Your task to perform on an android device: change the clock display to digital Image 0: 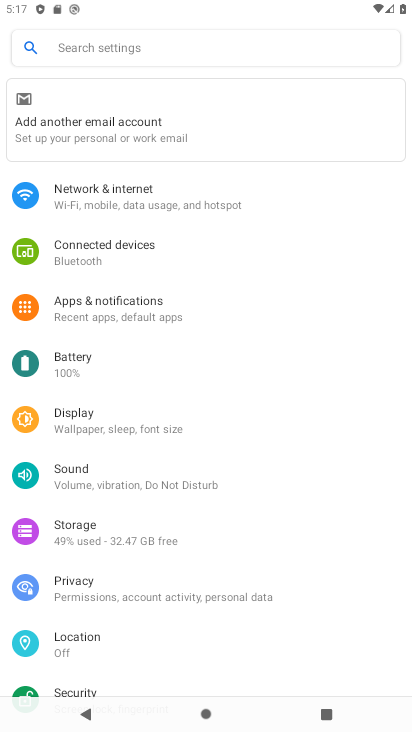
Step 0: press home button
Your task to perform on an android device: change the clock display to digital Image 1: 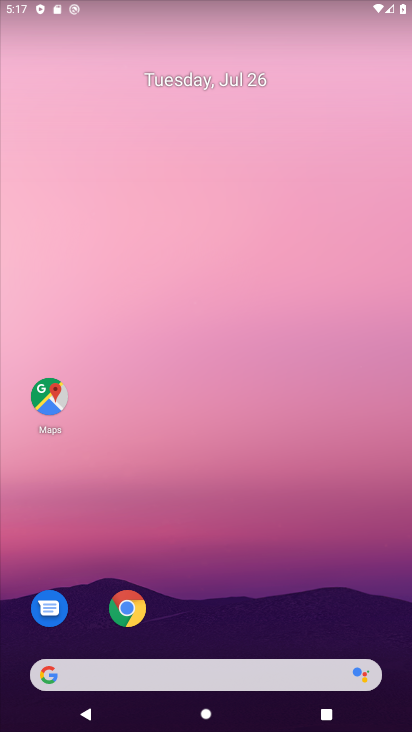
Step 1: drag from (287, 603) to (327, 108)
Your task to perform on an android device: change the clock display to digital Image 2: 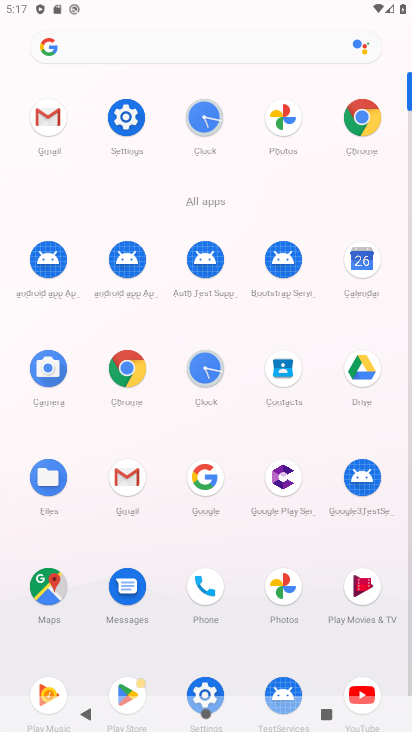
Step 2: click (206, 126)
Your task to perform on an android device: change the clock display to digital Image 3: 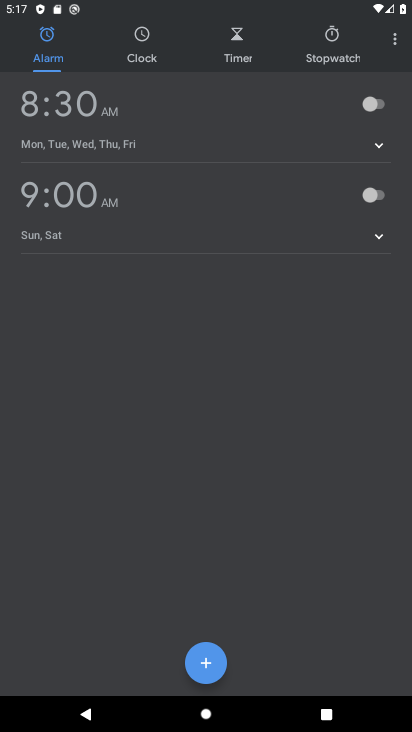
Step 3: click (395, 44)
Your task to perform on an android device: change the clock display to digital Image 4: 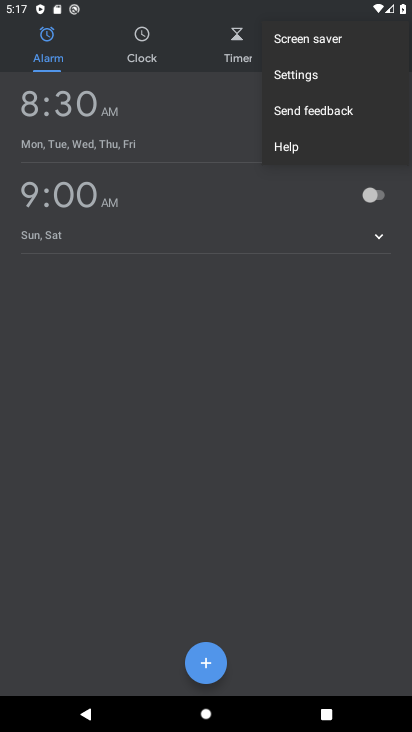
Step 4: click (301, 74)
Your task to perform on an android device: change the clock display to digital Image 5: 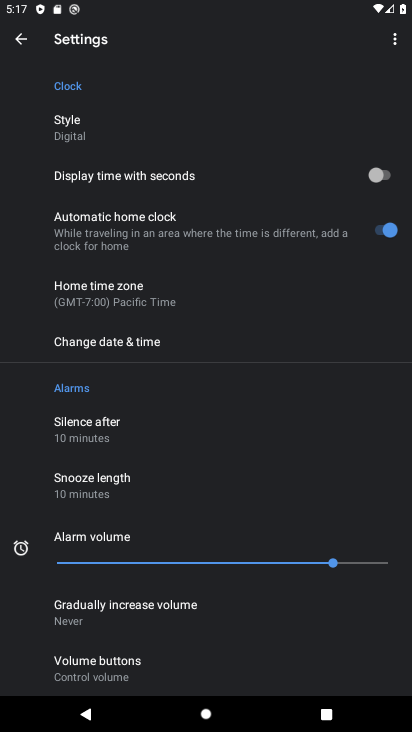
Step 5: click (69, 134)
Your task to perform on an android device: change the clock display to digital Image 6: 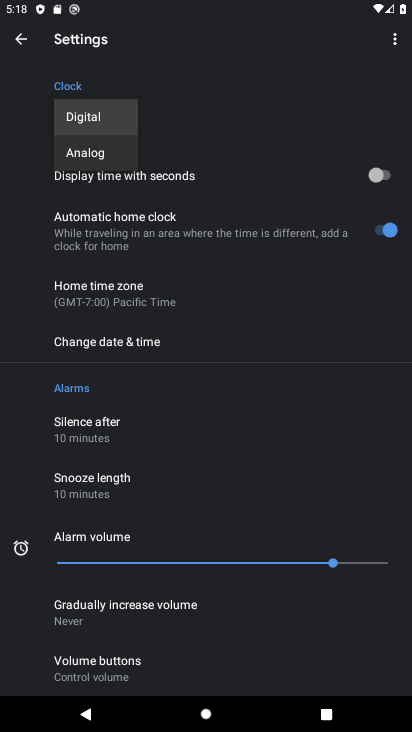
Step 6: task complete